Your task to perform on an android device: clear history in the chrome app Image 0: 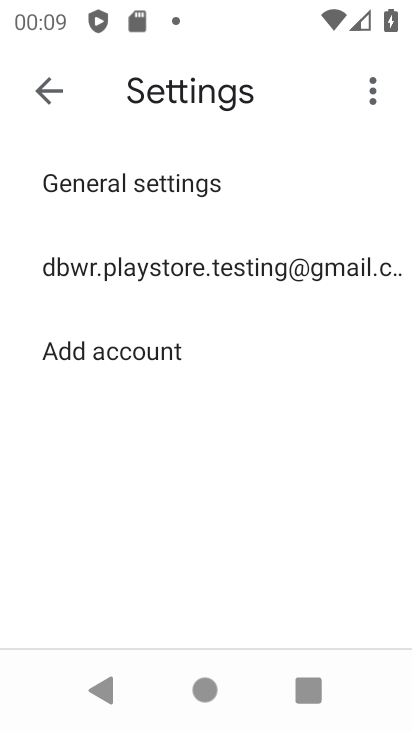
Step 0: press back button
Your task to perform on an android device: clear history in the chrome app Image 1: 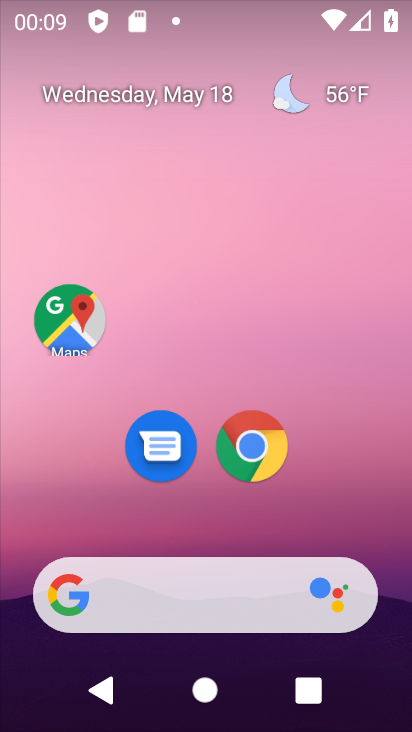
Step 1: drag from (374, 636) to (202, 1)
Your task to perform on an android device: clear history in the chrome app Image 2: 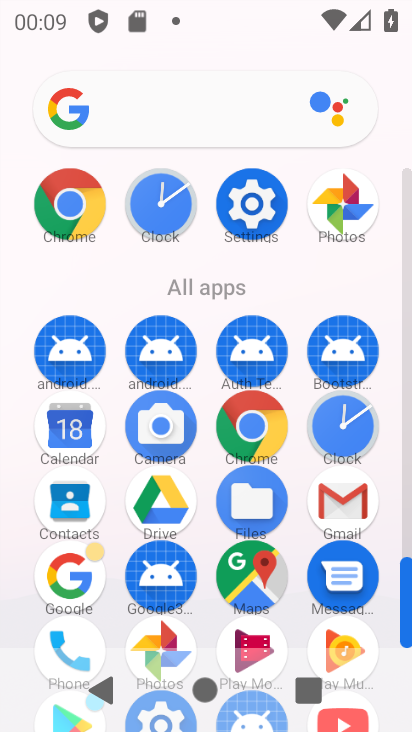
Step 2: click (67, 204)
Your task to perform on an android device: clear history in the chrome app Image 3: 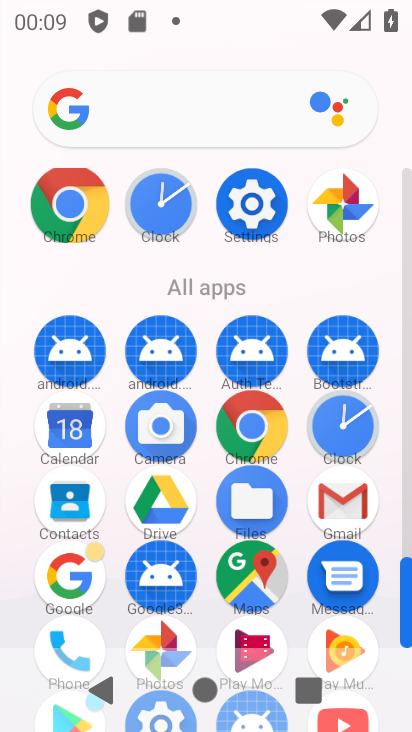
Step 3: click (68, 199)
Your task to perform on an android device: clear history in the chrome app Image 4: 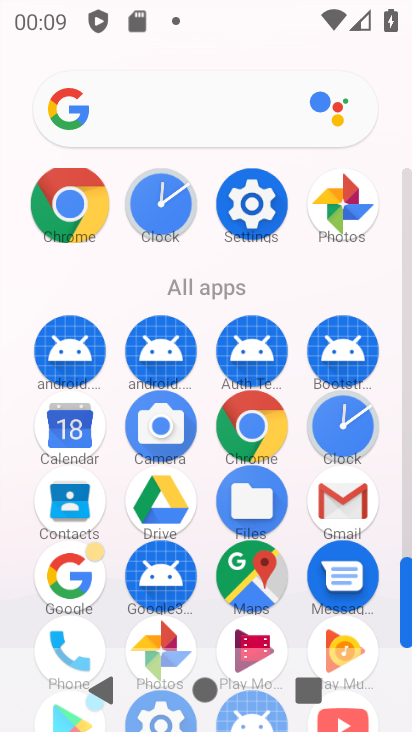
Step 4: click (69, 198)
Your task to perform on an android device: clear history in the chrome app Image 5: 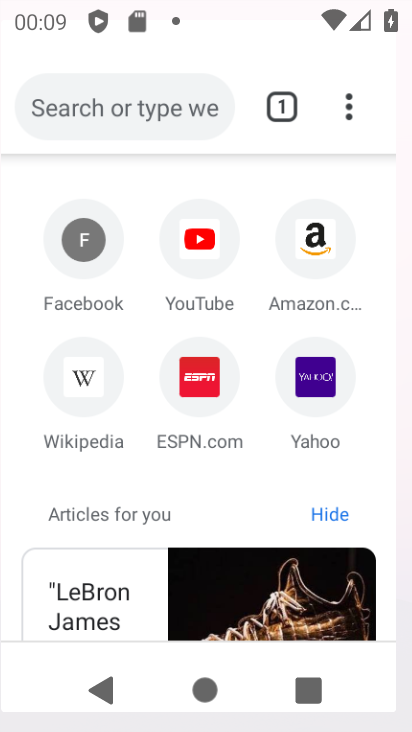
Step 5: click (69, 197)
Your task to perform on an android device: clear history in the chrome app Image 6: 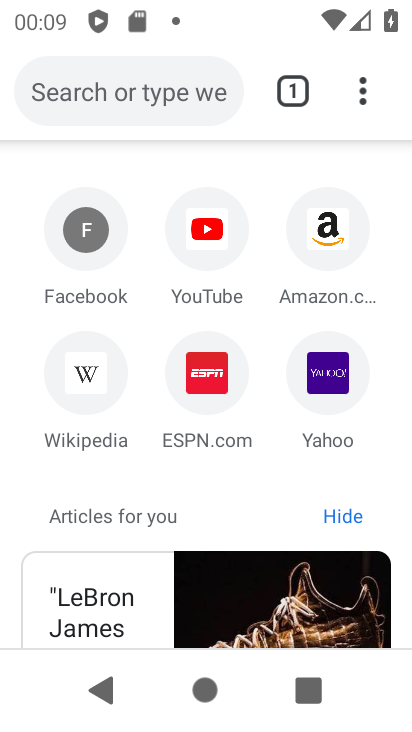
Step 6: click (69, 197)
Your task to perform on an android device: clear history in the chrome app Image 7: 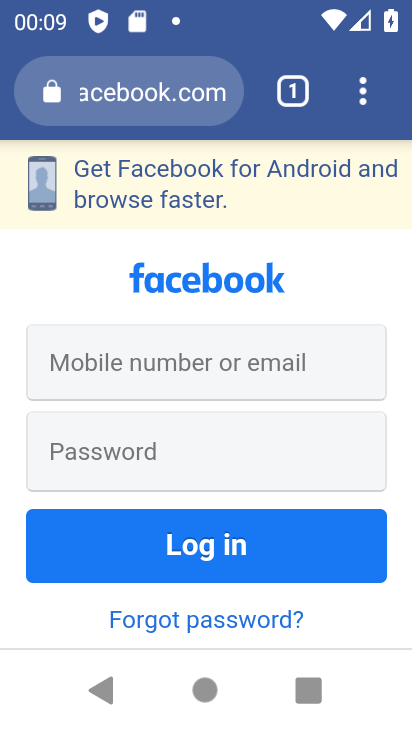
Step 7: press back button
Your task to perform on an android device: clear history in the chrome app Image 8: 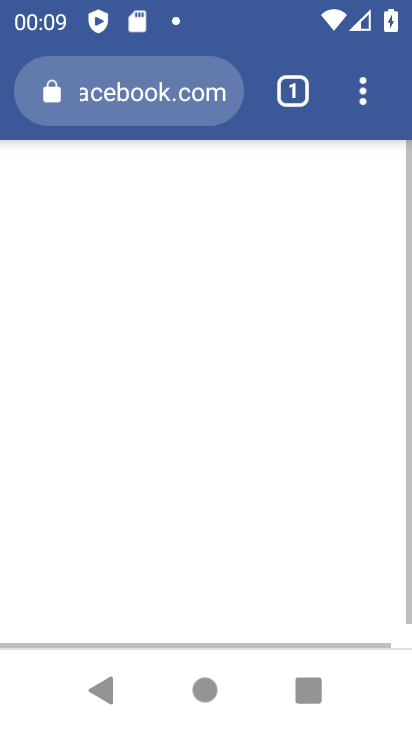
Step 8: press back button
Your task to perform on an android device: clear history in the chrome app Image 9: 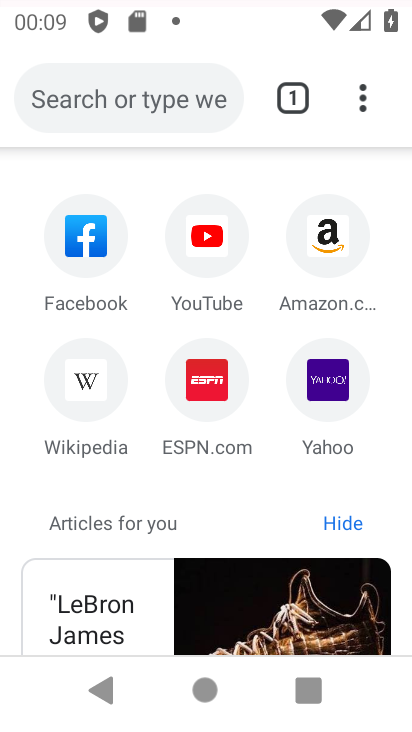
Step 9: press back button
Your task to perform on an android device: clear history in the chrome app Image 10: 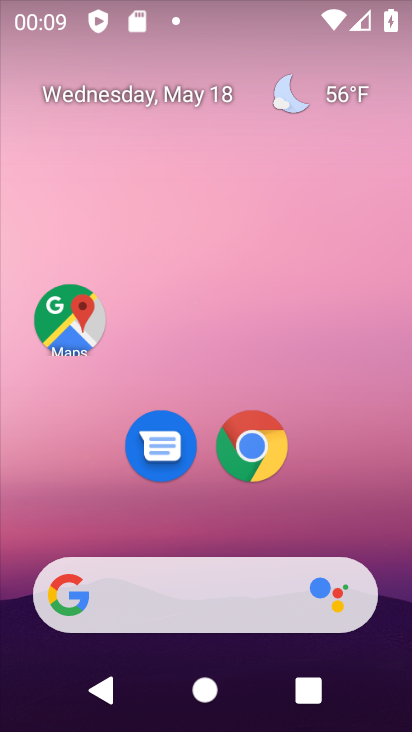
Step 10: drag from (256, 673) to (119, 42)
Your task to perform on an android device: clear history in the chrome app Image 11: 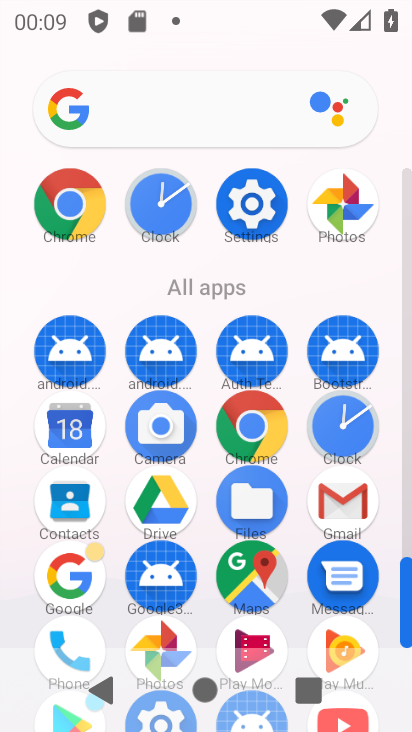
Step 11: click (259, 420)
Your task to perform on an android device: clear history in the chrome app Image 12: 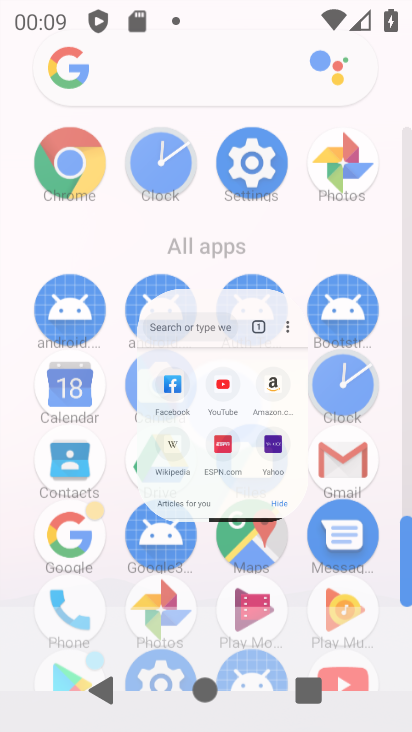
Step 12: click (259, 420)
Your task to perform on an android device: clear history in the chrome app Image 13: 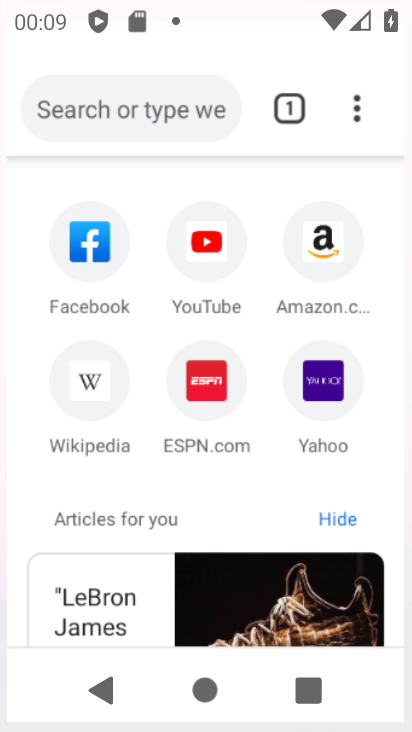
Step 13: click (258, 419)
Your task to perform on an android device: clear history in the chrome app Image 14: 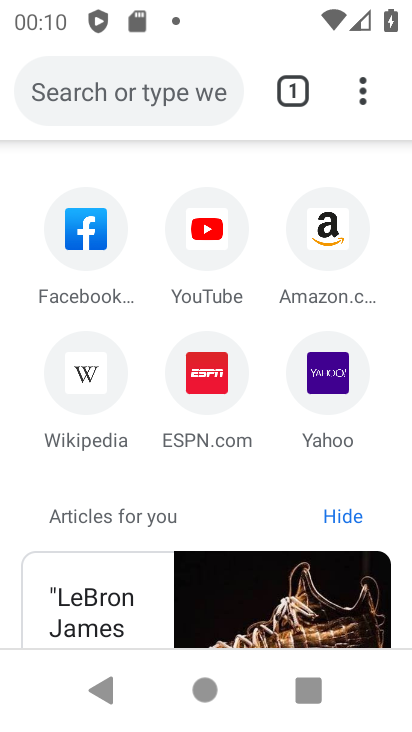
Step 14: drag from (355, 85) to (66, 503)
Your task to perform on an android device: clear history in the chrome app Image 15: 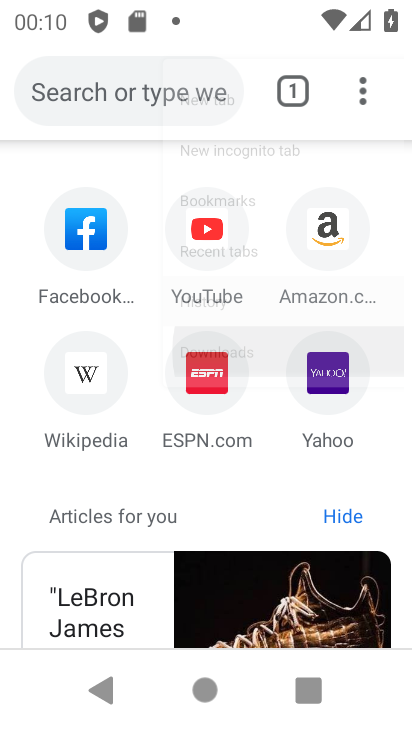
Step 15: click (68, 499)
Your task to perform on an android device: clear history in the chrome app Image 16: 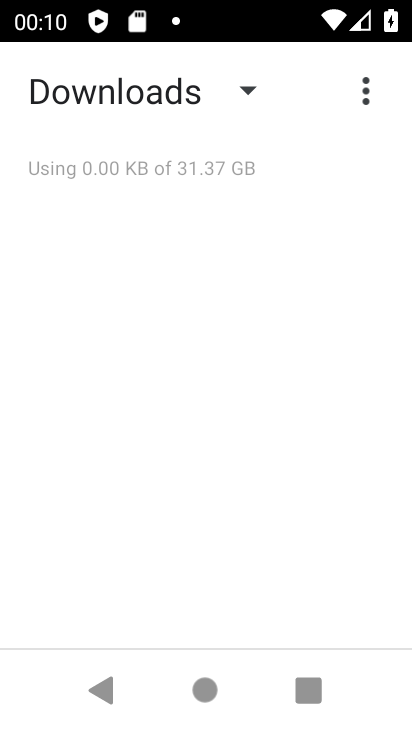
Step 16: click (68, 473)
Your task to perform on an android device: clear history in the chrome app Image 17: 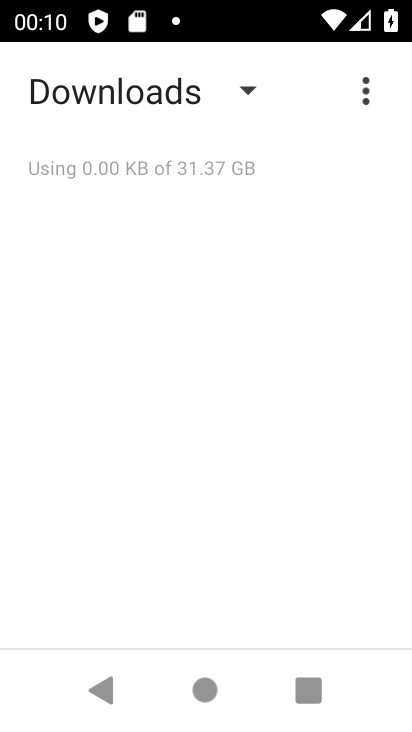
Step 17: click (253, 89)
Your task to perform on an android device: clear history in the chrome app Image 18: 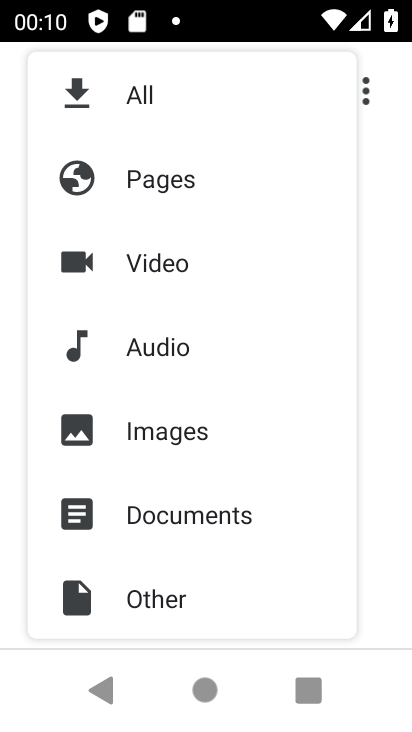
Step 18: click (143, 181)
Your task to perform on an android device: clear history in the chrome app Image 19: 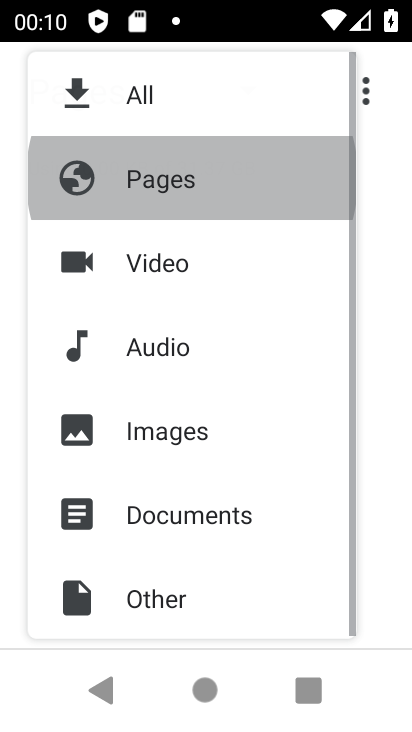
Step 19: click (145, 179)
Your task to perform on an android device: clear history in the chrome app Image 20: 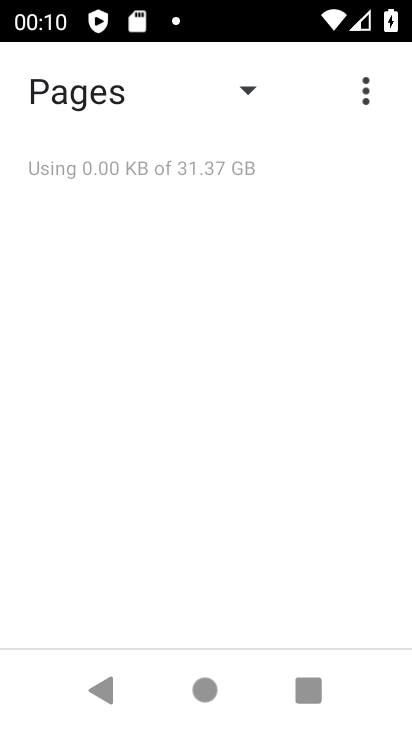
Step 20: task complete